Your task to perform on an android device: When is my next meeting? Image 0: 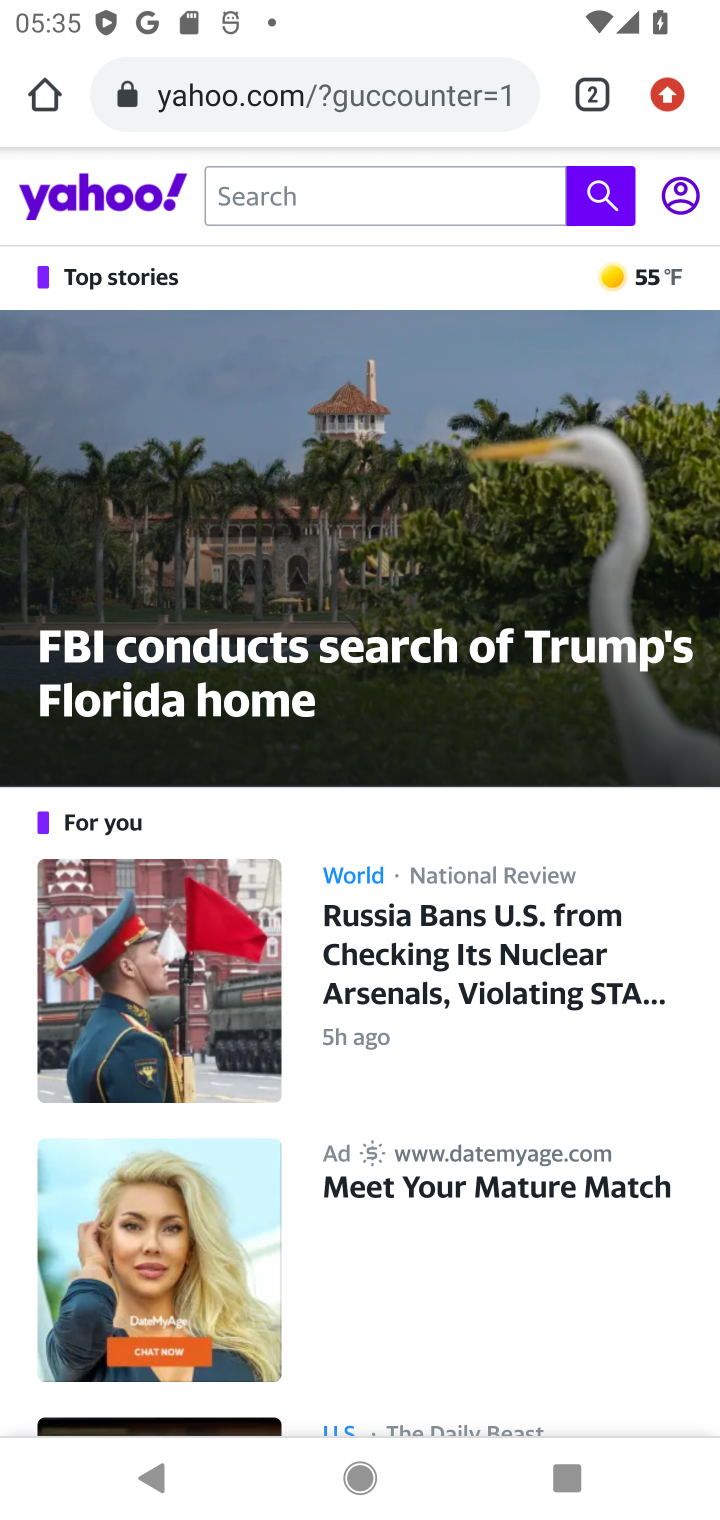
Step 0: press home button
Your task to perform on an android device: When is my next meeting? Image 1: 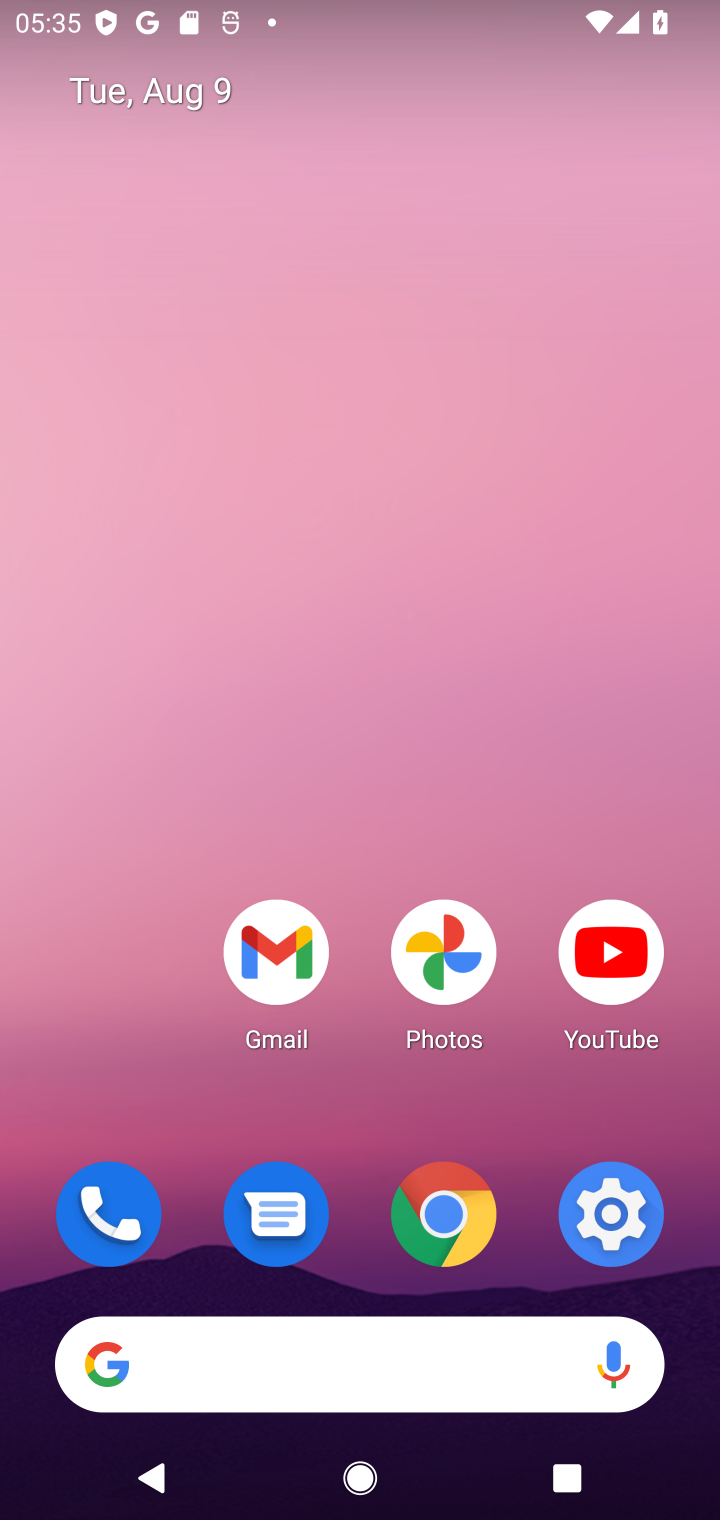
Step 1: drag from (396, 1427) to (481, 680)
Your task to perform on an android device: When is my next meeting? Image 2: 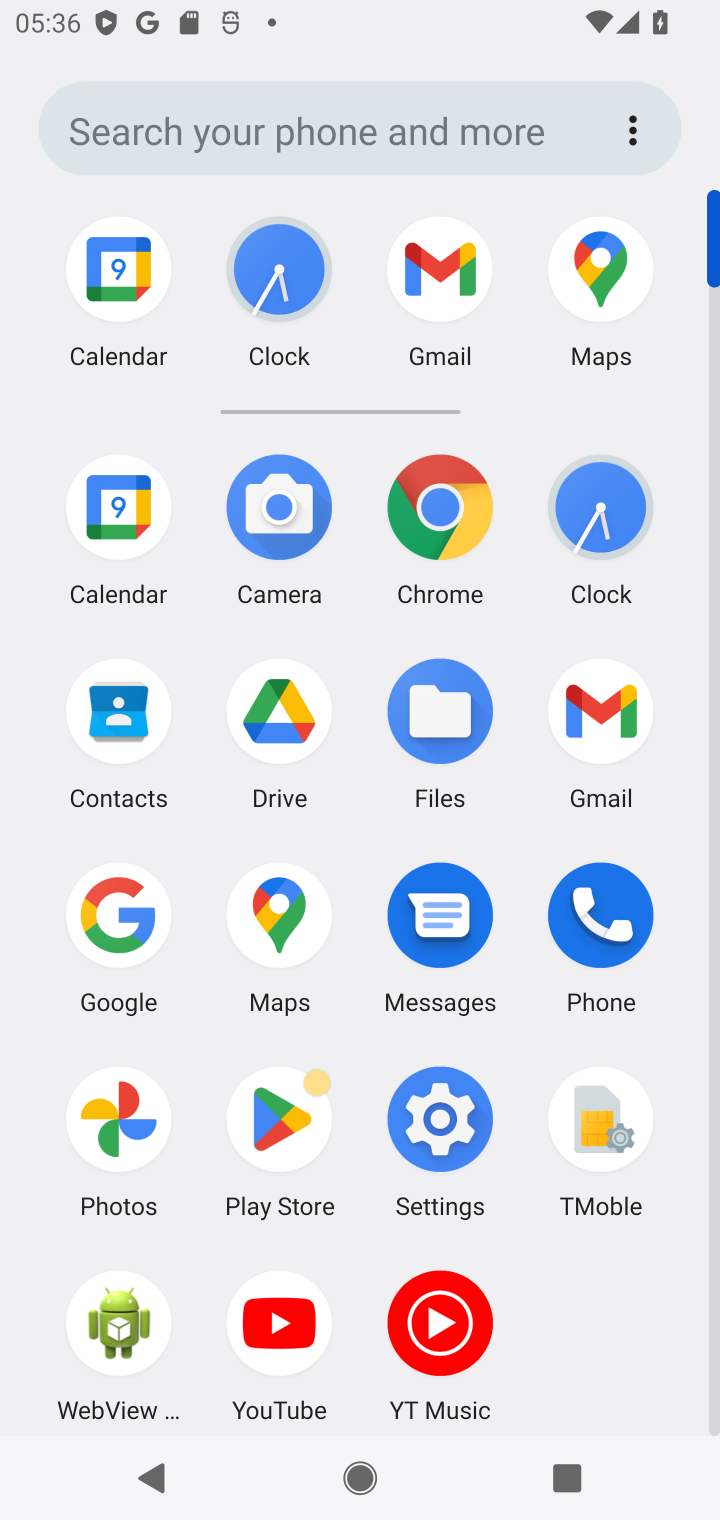
Step 2: click (123, 520)
Your task to perform on an android device: When is my next meeting? Image 3: 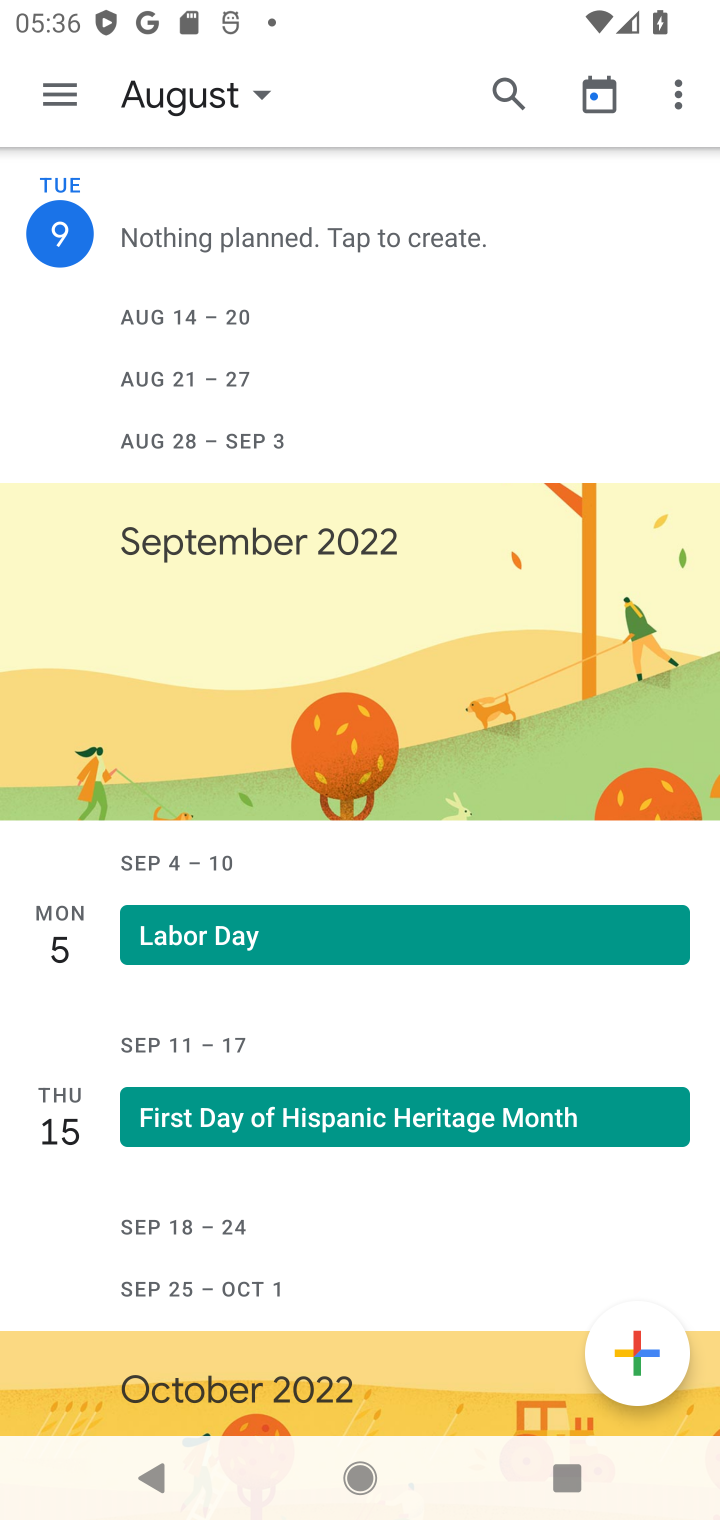
Step 3: click (71, 106)
Your task to perform on an android device: When is my next meeting? Image 4: 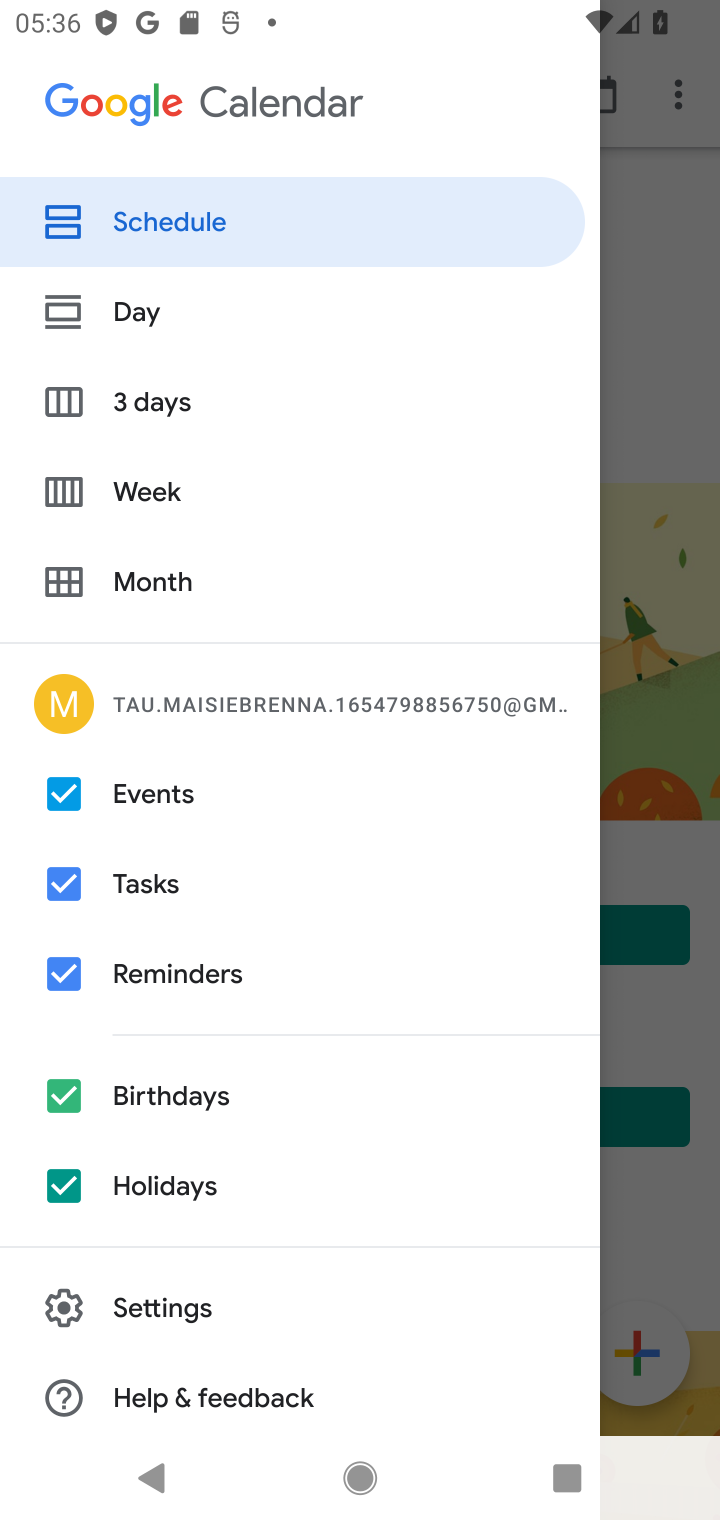
Step 4: click (114, 573)
Your task to perform on an android device: When is my next meeting? Image 5: 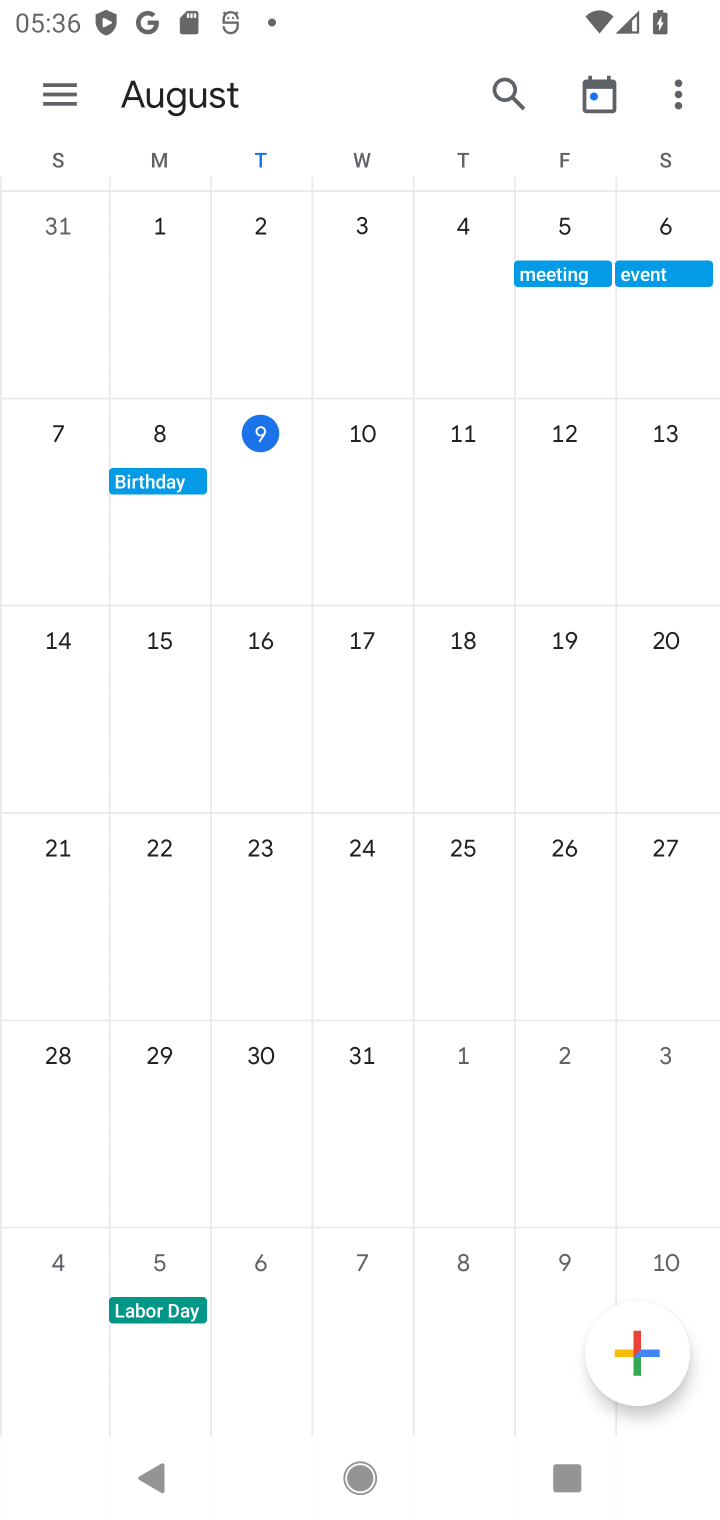
Step 5: click (260, 457)
Your task to perform on an android device: When is my next meeting? Image 6: 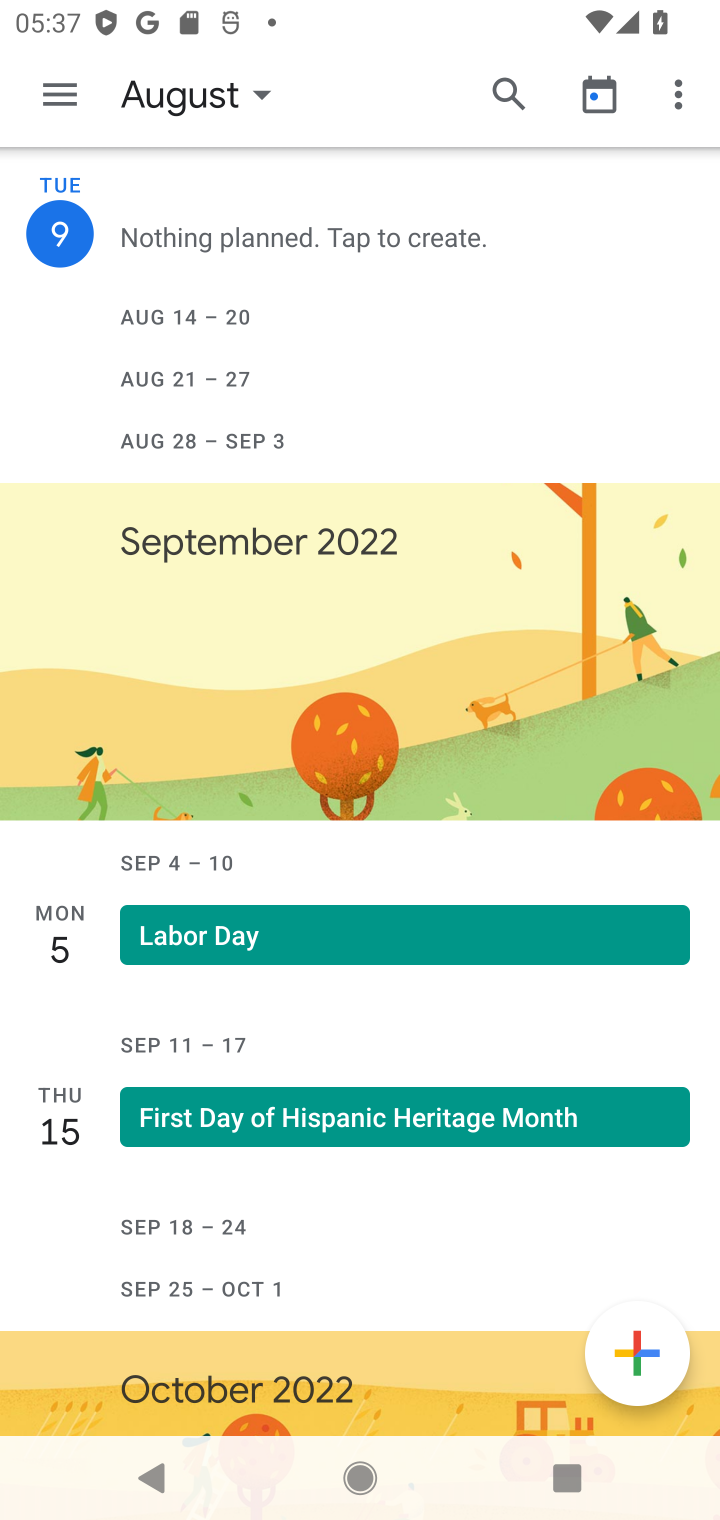
Step 6: task complete